Your task to perform on an android device: When is my next appointment? Image 0: 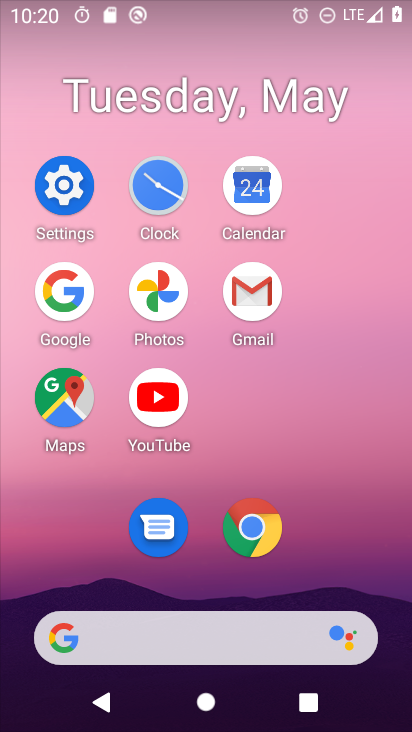
Step 0: click (260, 198)
Your task to perform on an android device: When is my next appointment? Image 1: 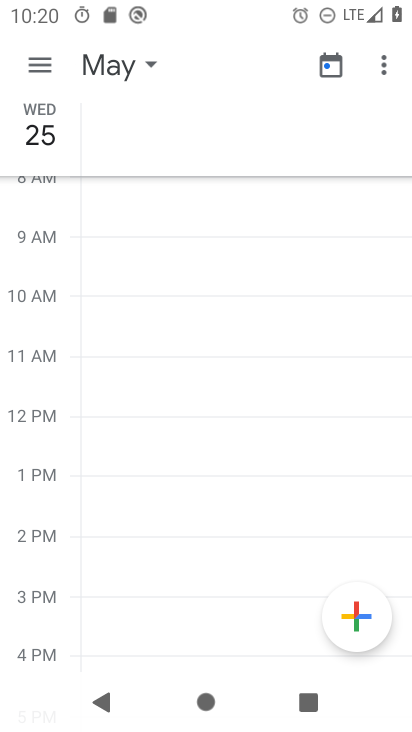
Step 1: task complete